Your task to perform on an android device: What's on my calendar today? Image 0: 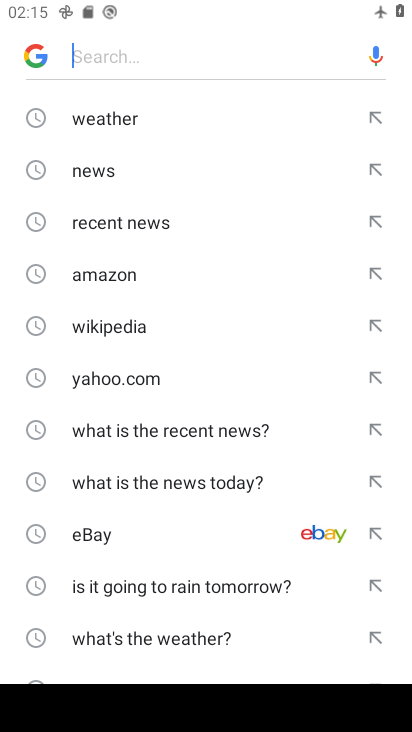
Step 0: press home button
Your task to perform on an android device: What's on my calendar today? Image 1: 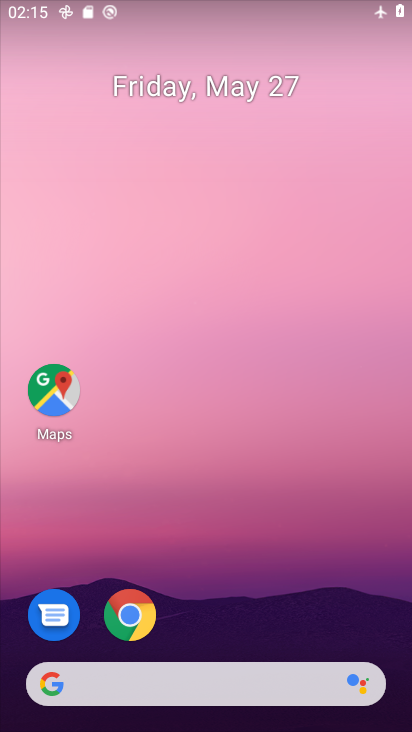
Step 1: drag from (352, 608) to (353, 231)
Your task to perform on an android device: What's on my calendar today? Image 2: 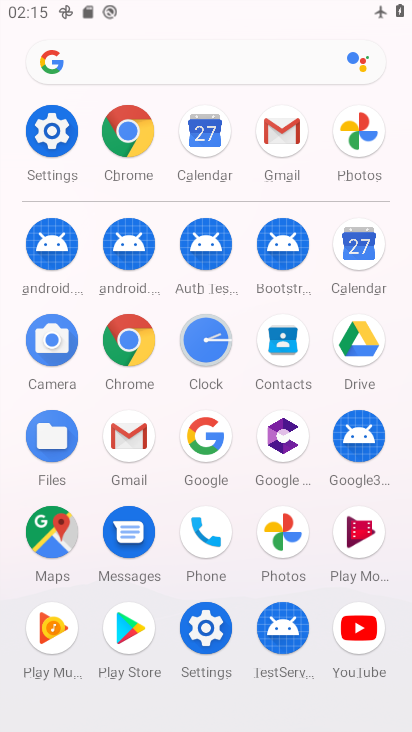
Step 2: click (356, 282)
Your task to perform on an android device: What's on my calendar today? Image 3: 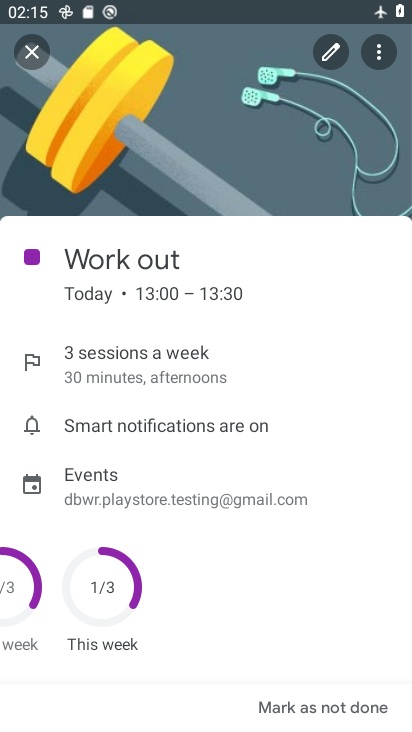
Step 3: task complete